Your task to perform on an android device: Go to internet settings Image 0: 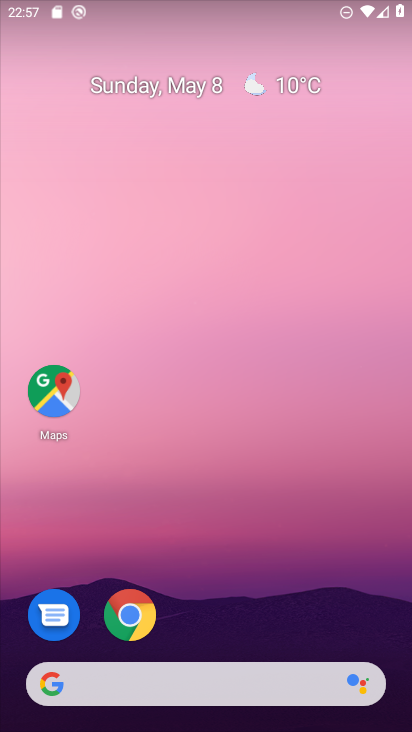
Step 0: drag from (294, 607) to (274, 61)
Your task to perform on an android device: Go to internet settings Image 1: 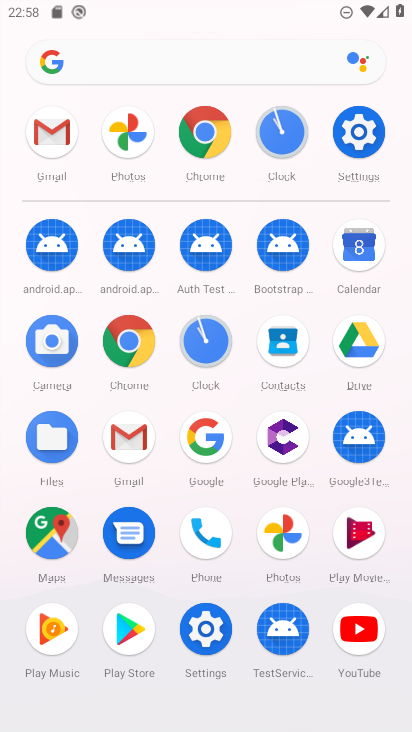
Step 1: click (358, 145)
Your task to perform on an android device: Go to internet settings Image 2: 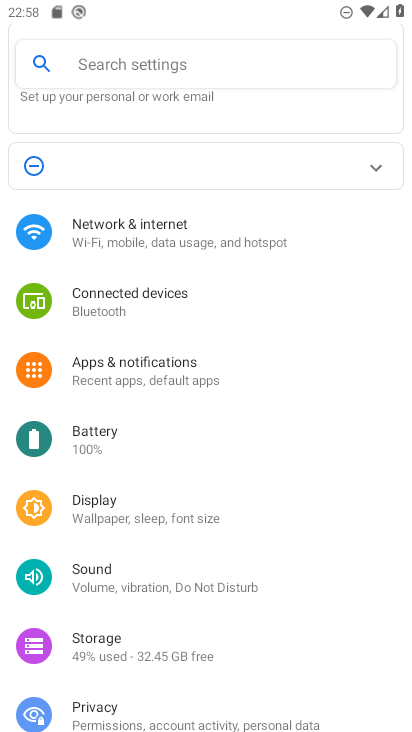
Step 2: click (175, 226)
Your task to perform on an android device: Go to internet settings Image 3: 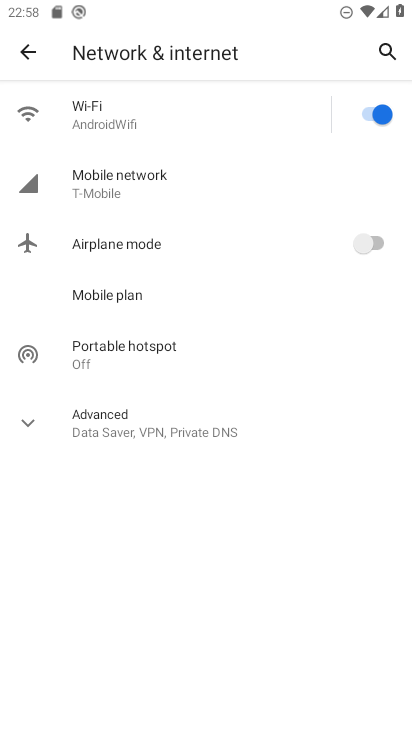
Step 3: task complete